Your task to perform on an android device: turn off airplane mode Image 0: 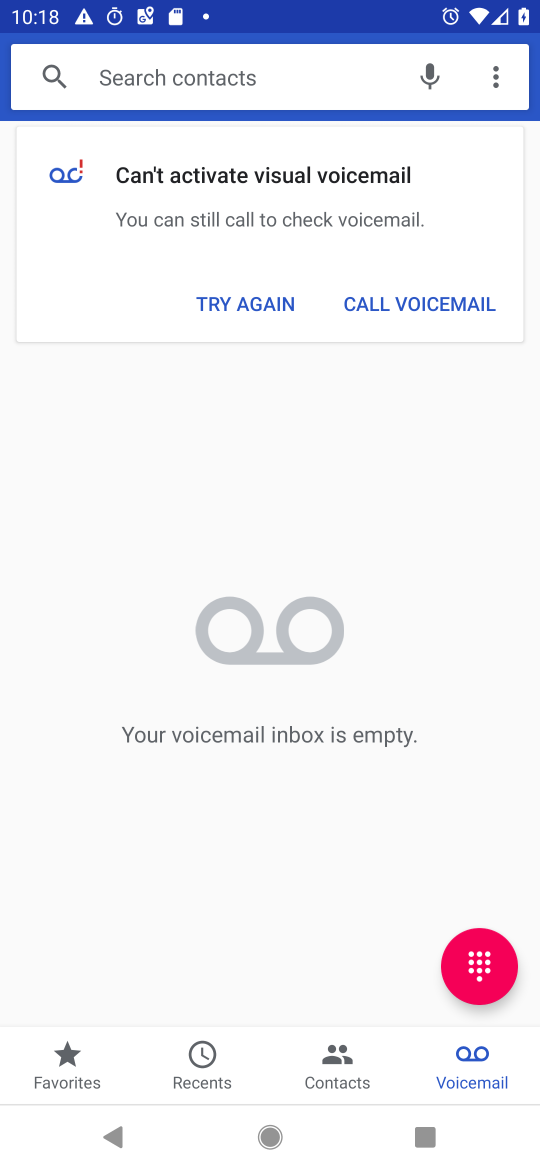
Step 0: press home button
Your task to perform on an android device: turn off airplane mode Image 1: 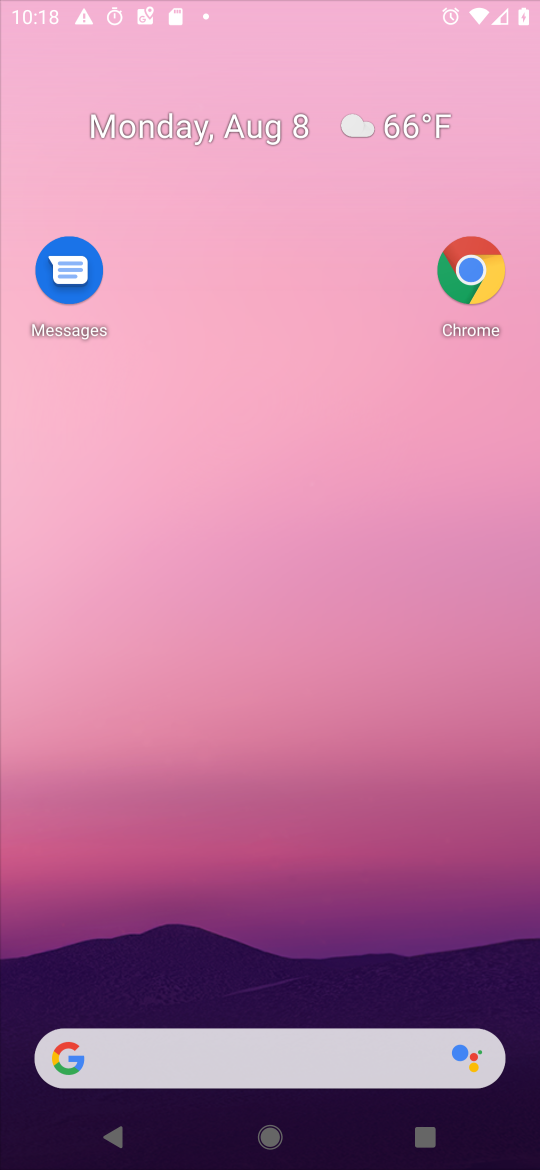
Step 1: drag from (338, 896) to (499, 134)
Your task to perform on an android device: turn off airplane mode Image 2: 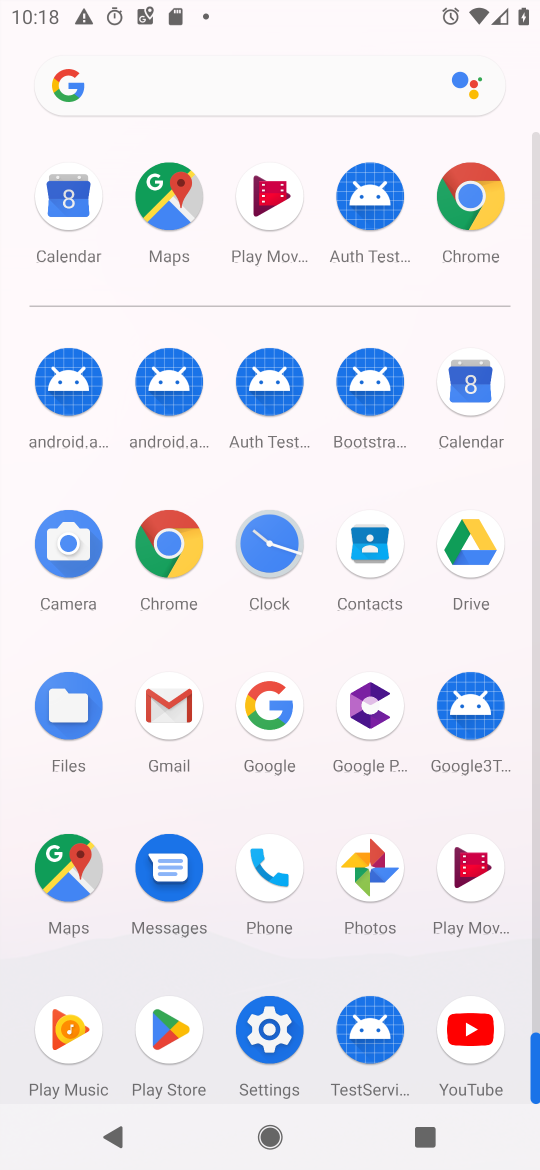
Step 2: click (454, 1040)
Your task to perform on an android device: turn off airplane mode Image 3: 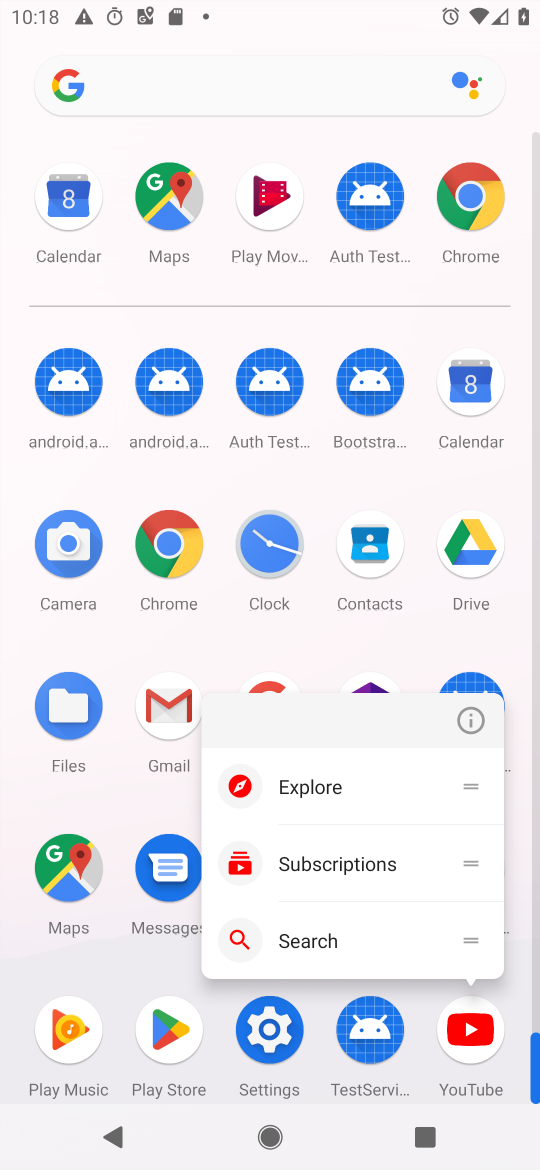
Step 3: click (475, 707)
Your task to perform on an android device: turn off airplane mode Image 4: 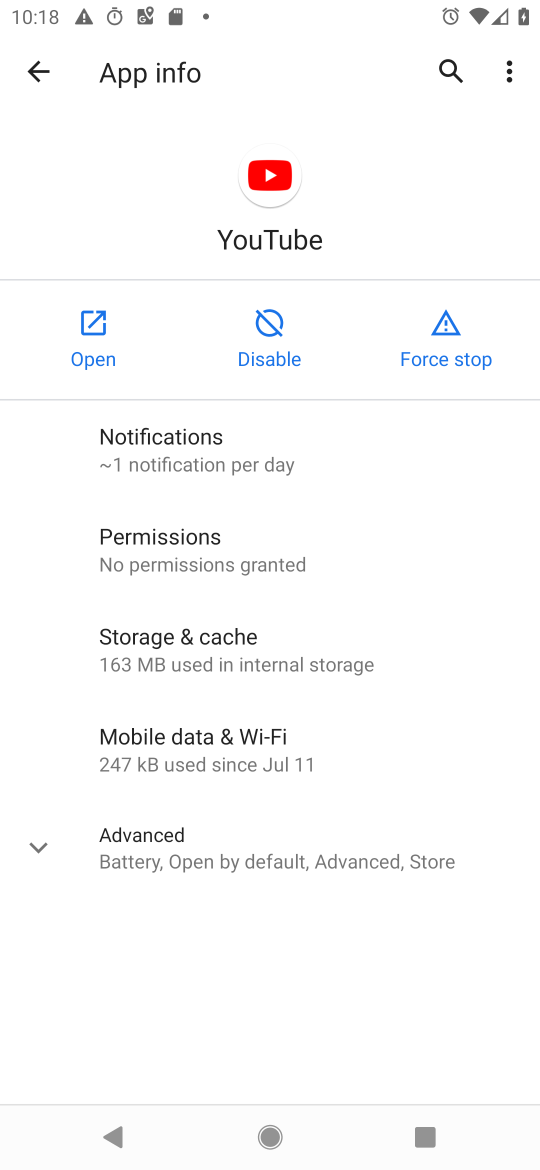
Step 4: click (93, 335)
Your task to perform on an android device: turn off airplane mode Image 5: 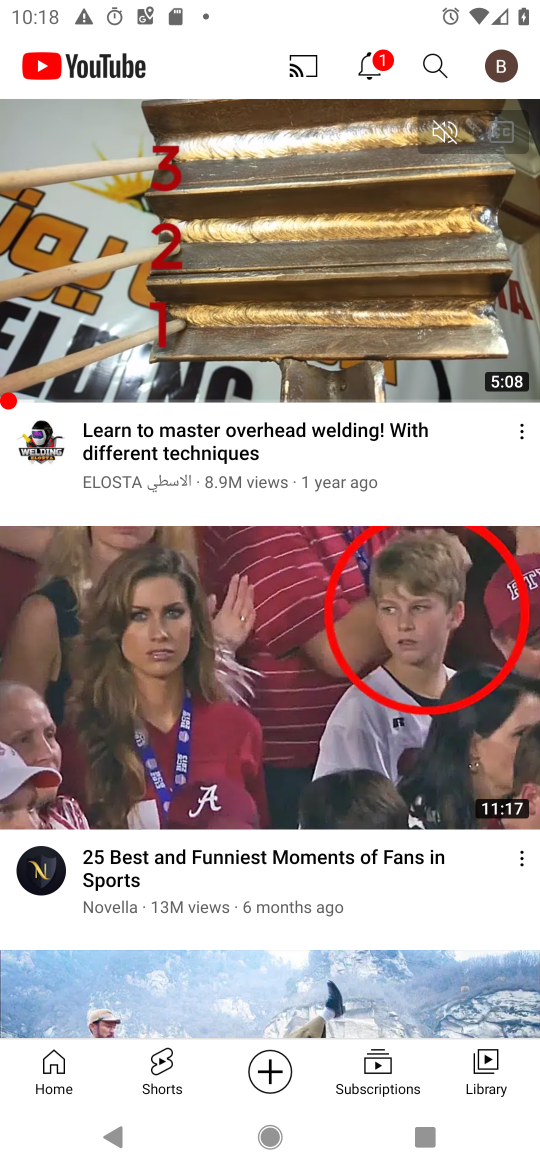
Step 5: press home button
Your task to perform on an android device: turn off airplane mode Image 6: 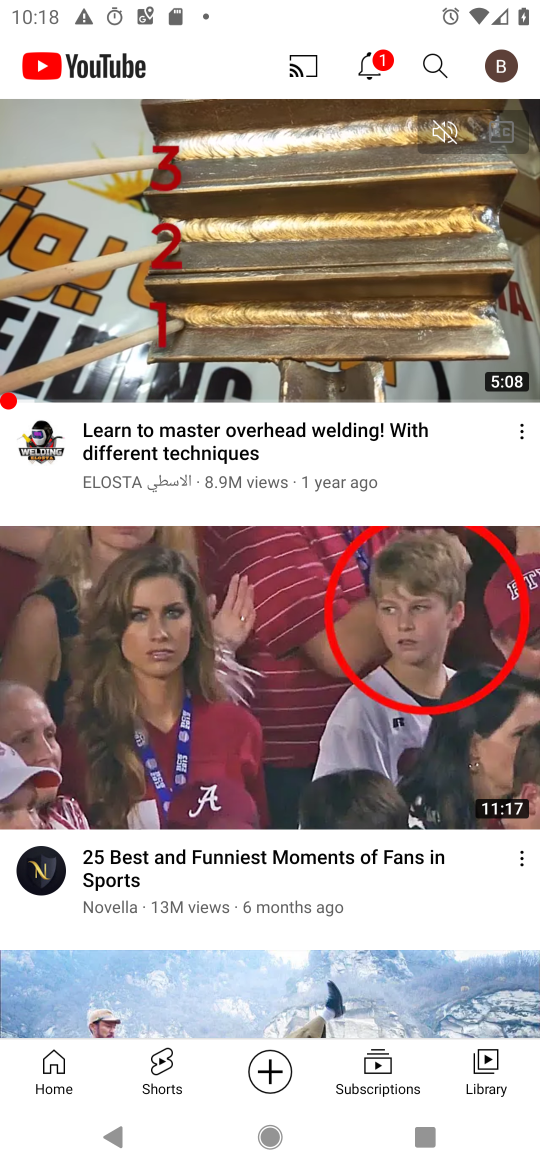
Step 6: click (341, 102)
Your task to perform on an android device: turn off airplane mode Image 7: 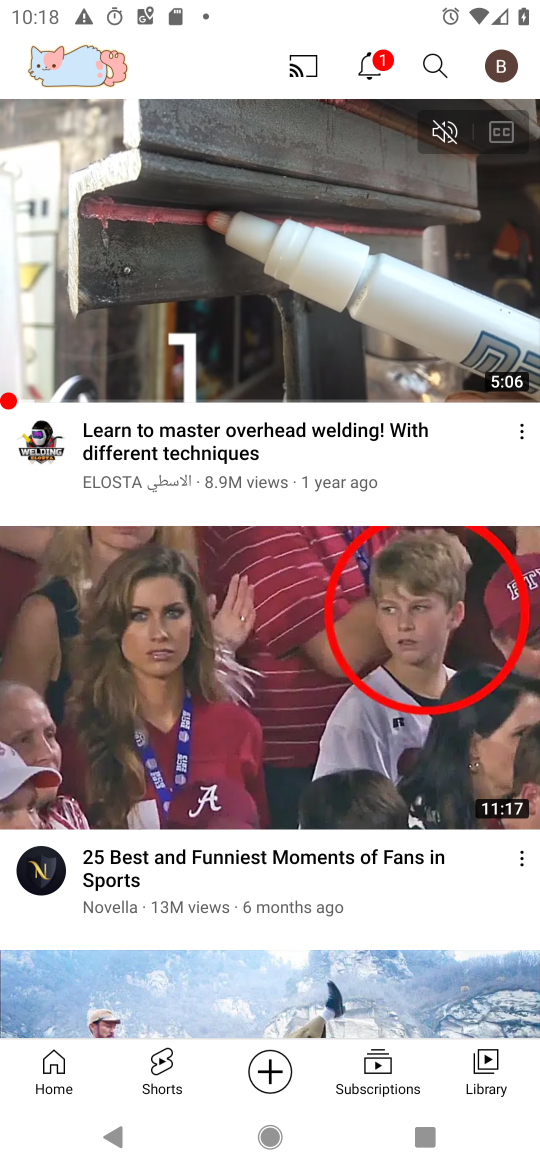
Step 7: drag from (333, 759) to (432, 127)
Your task to perform on an android device: turn off airplane mode Image 8: 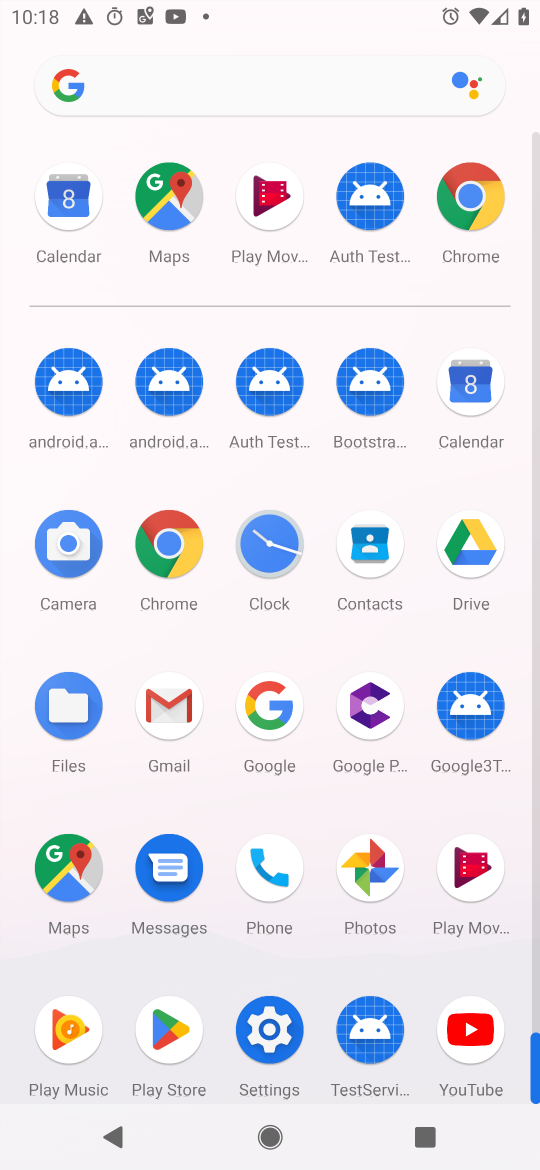
Step 8: click (268, 1029)
Your task to perform on an android device: turn off airplane mode Image 9: 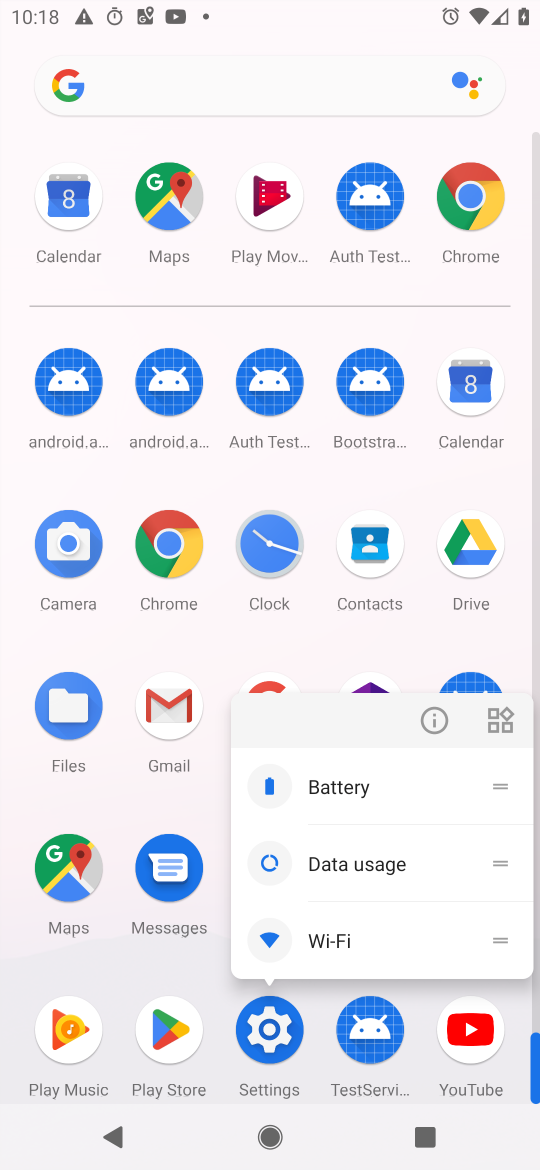
Step 9: click (417, 716)
Your task to perform on an android device: turn off airplane mode Image 10: 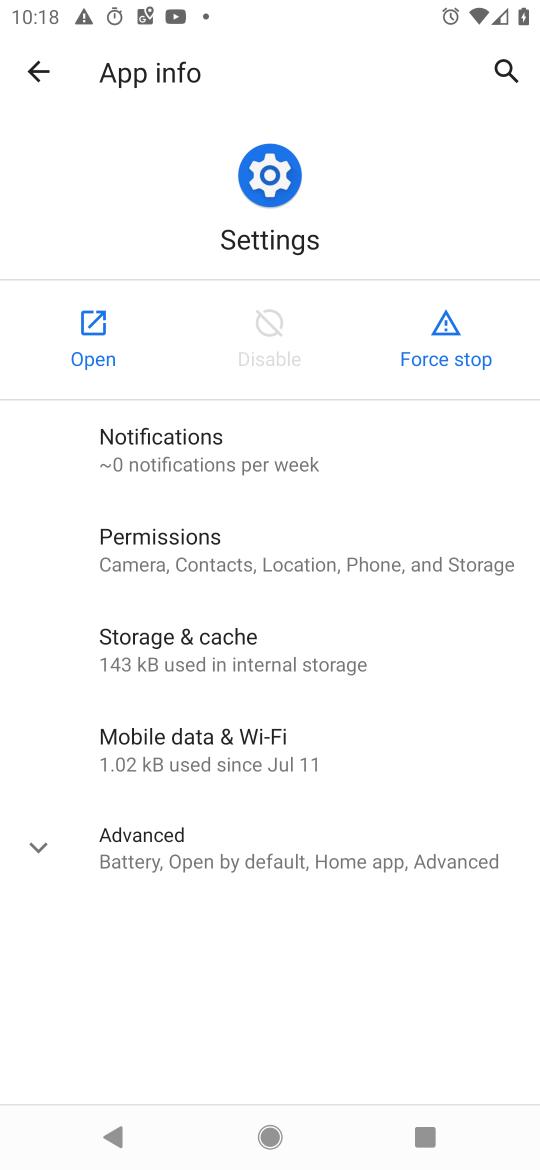
Step 10: click (109, 327)
Your task to perform on an android device: turn off airplane mode Image 11: 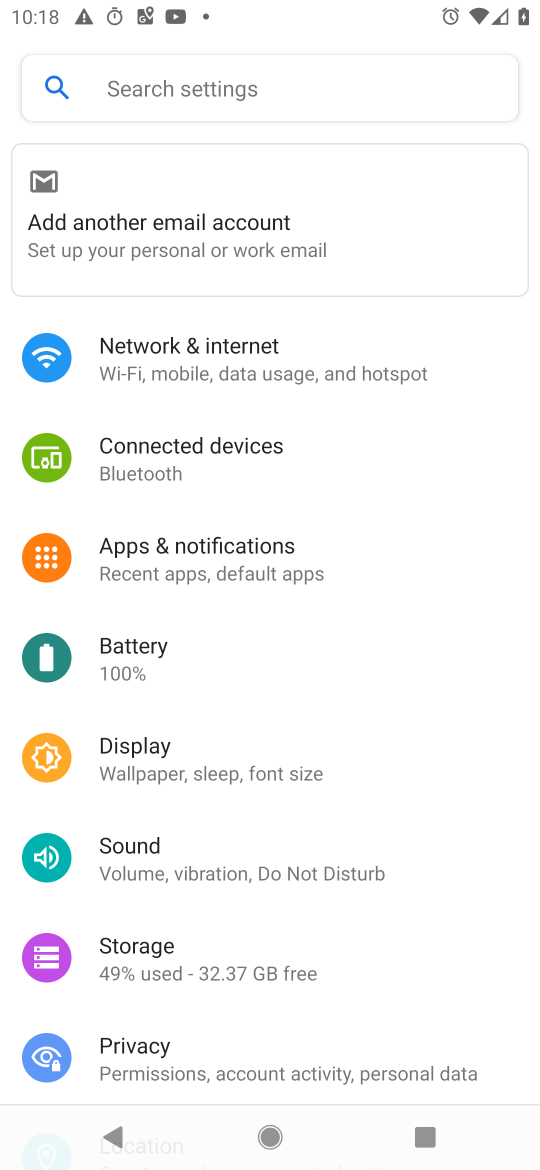
Step 11: click (238, 376)
Your task to perform on an android device: turn off airplane mode Image 12: 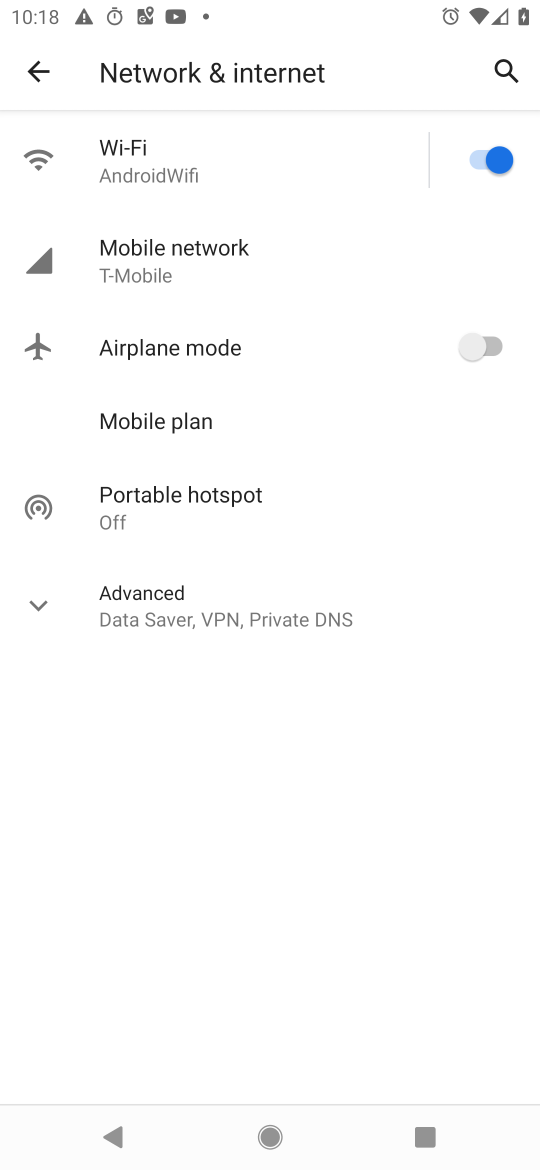
Step 12: task complete